Your task to perform on an android device: Add "corsair k70" to the cart on target.com, then select checkout. Image 0: 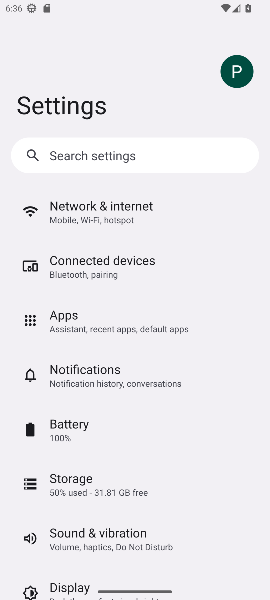
Step 0: press home button
Your task to perform on an android device: Add "corsair k70" to the cart on target.com, then select checkout. Image 1: 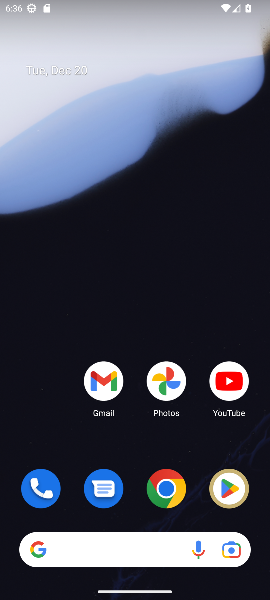
Step 1: drag from (58, 406) to (27, 35)
Your task to perform on an android device: Add "corsair k70" to the cart on target.com, then select checkout. Image 2: 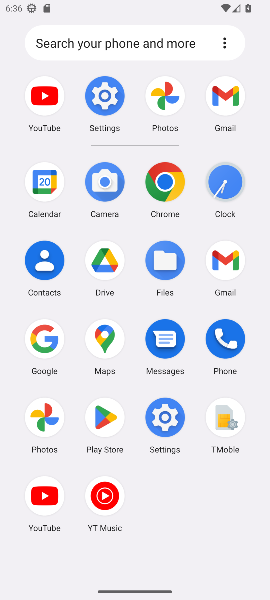
Step 2: click (35, 333)
Your task to perform on an android device: Add "corsair k70" to the cart on target.com, then select checkout. Image 3: 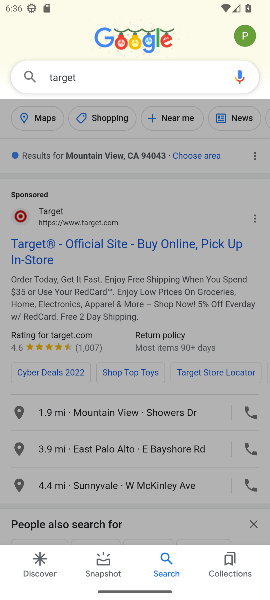
Step 3: click (139, 75)
Your task to perform on an android device: Add "corsair k70" to the cart on target.com, then select checkout. Image 4: 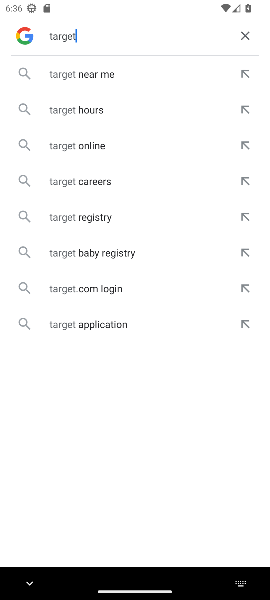
Step 4: click (242, 32)
Your task to perform on an android device: Add "corsair k70" to the cart on target.com, then select checkout. Image 5: 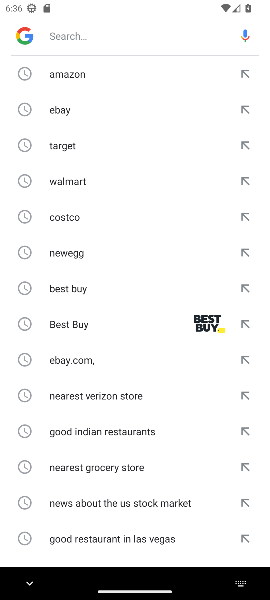
Step 5: type "target.com"
Your task to perform on an android device: Add "corsair k70" to the cart on target.com, then select checkout. Image 6: 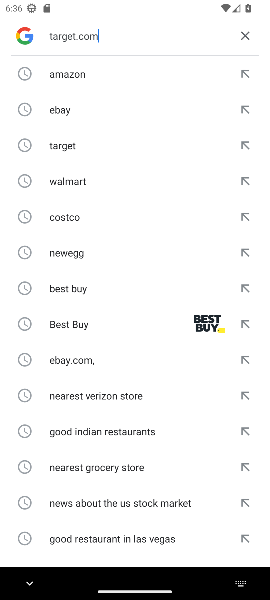
Step 6: press enter
Your task to perform on an android device: Add "corsair k70" to the cart on target.com, then select checkout. Image 7: 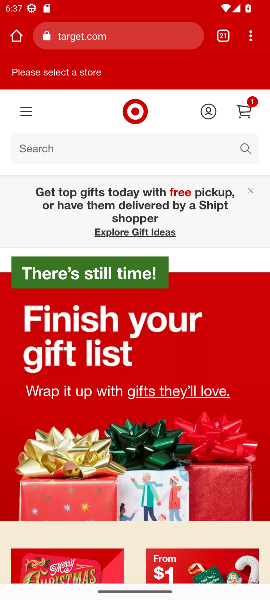
Step 7: click (65, 146)
Your task to perform on an android device: Add "corsair k70" to the cart on target.com, then select checkout. Image 8: 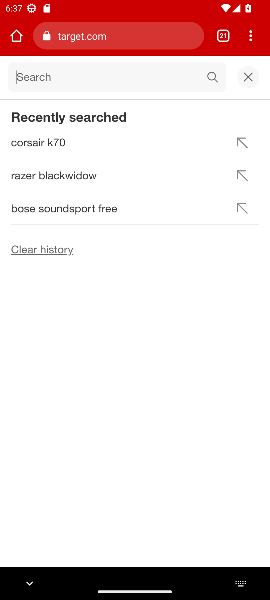
Step 8: type "corsair k70"
Your task to perform on an android device: Add "corsair k70" to the cart on target.com, then select checkout. Image 9: 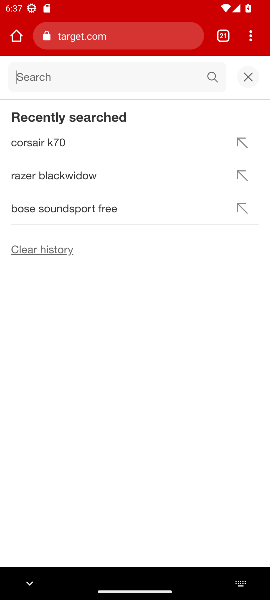
Step 9: press enter
Your task to perform on an android device: Add "corsair k70" to the cart on target.com, then select checkout. Image 10: 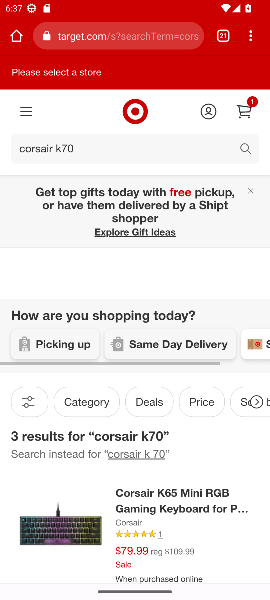
Step 10: task complete